Your task to perform on an android device: Open settings Image 0: 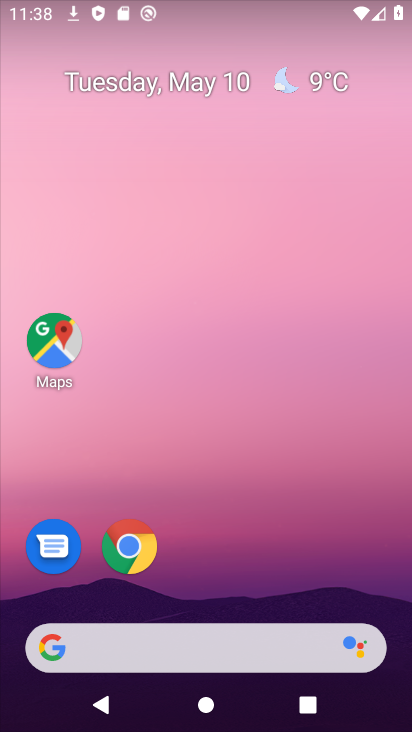
Step 0: click (235, 39)
Your task to perform on an android device: Open settings Image 1: 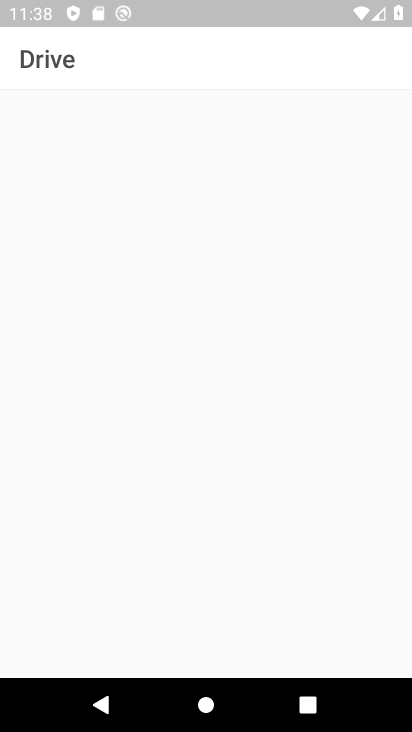
Step 1: press home button
Your task to perform on an android device: Open settings Image 2: 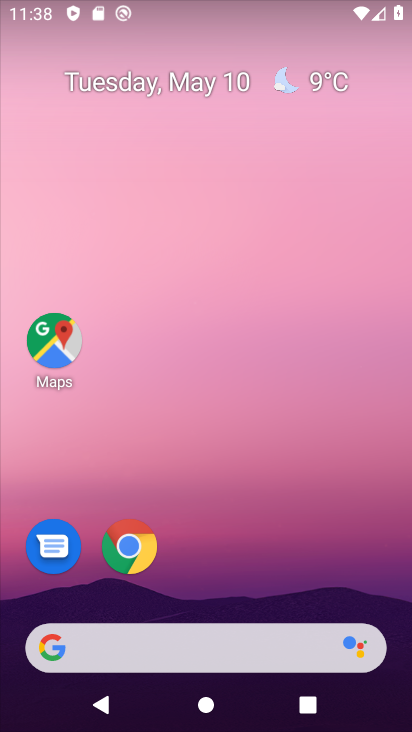
Step 2: drag from (200, 496) to (219, 7)
Your task to perform on an android device: Open settings Image 3: 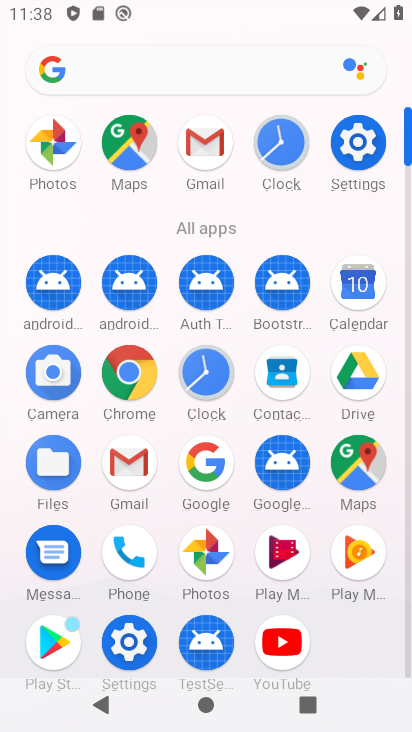
Step 3: click (361, 138)
Your task to perform on an android device: Open settings Image 4: 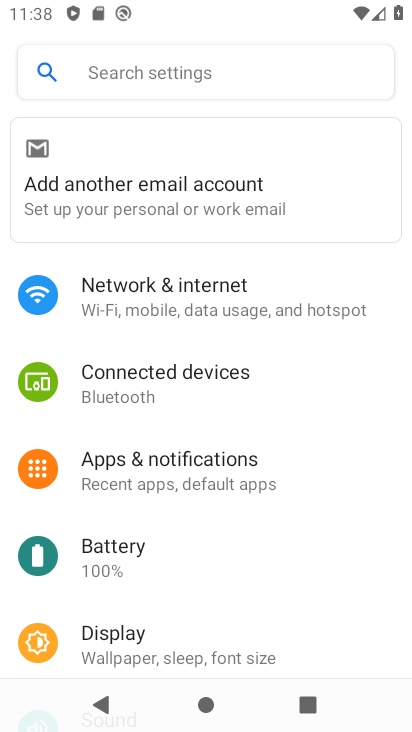
Step 4: task complete